Your task to perform on an android device: Open my contact list Image 0: 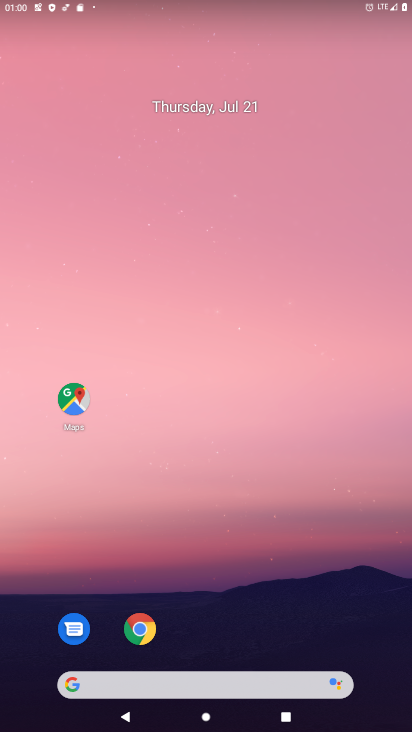
Step 0: drag from (316, 601) to (179, 60)
Your task to perform on an android device: Open my contact list Image 1: 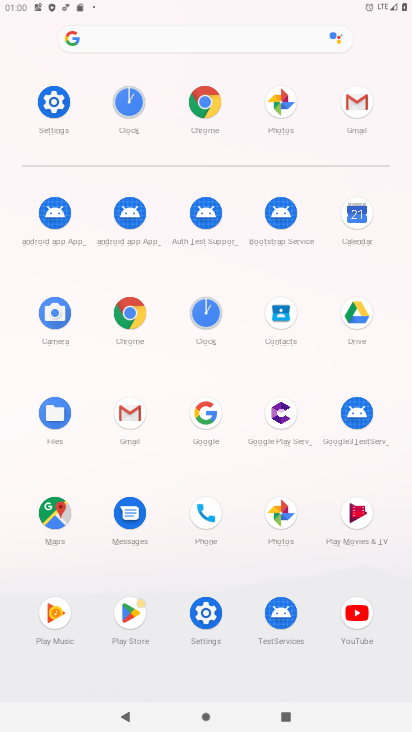
Step 1: click (293, 321)
Your task to perform on an android device: Open my contact list Image 2: 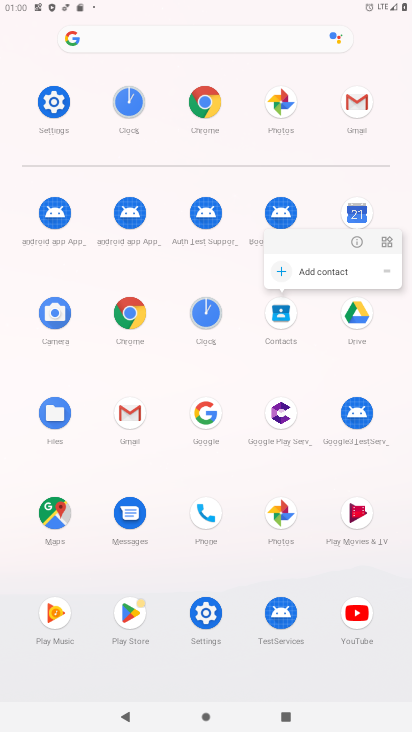
Step 2: click (270, 321)
Your task to perform on an android device: Open my contact list Image 3: 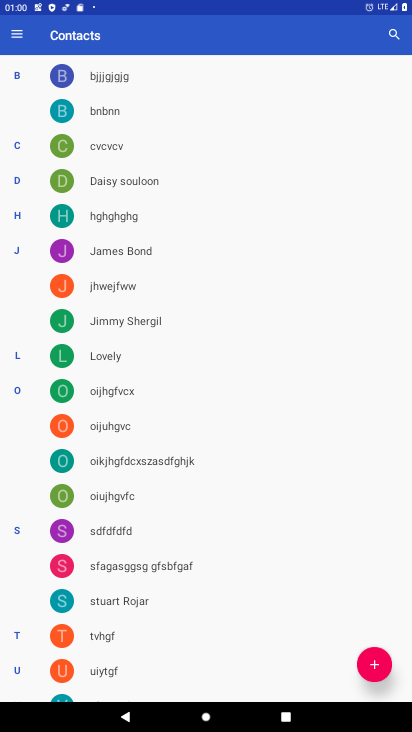
Step 3: task complete